Your task to perform on an android device: Go to Amazon Image 0: 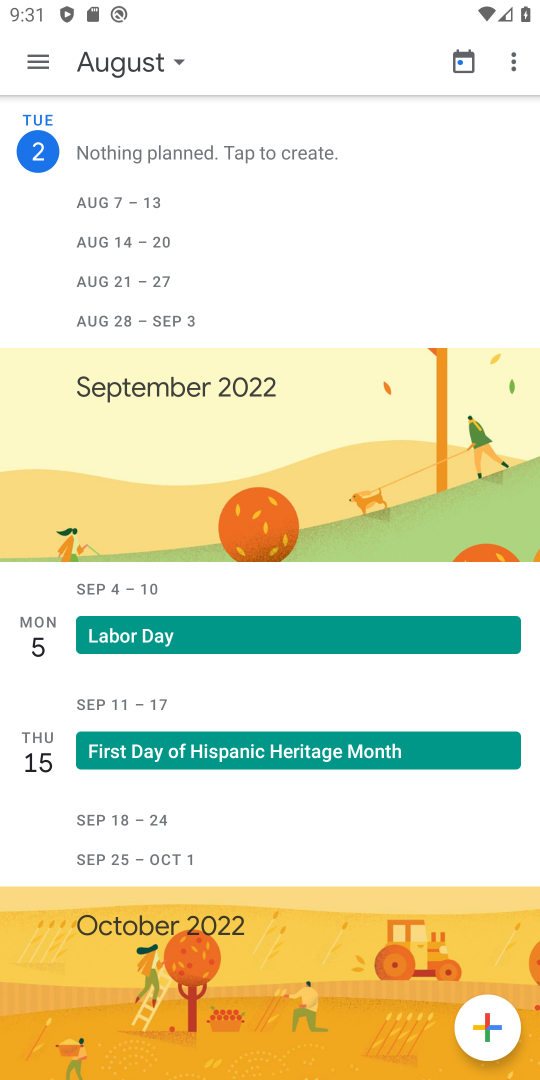
Step 0: press home button
Your task to perform on an android device: Go to Amazon Image 1: 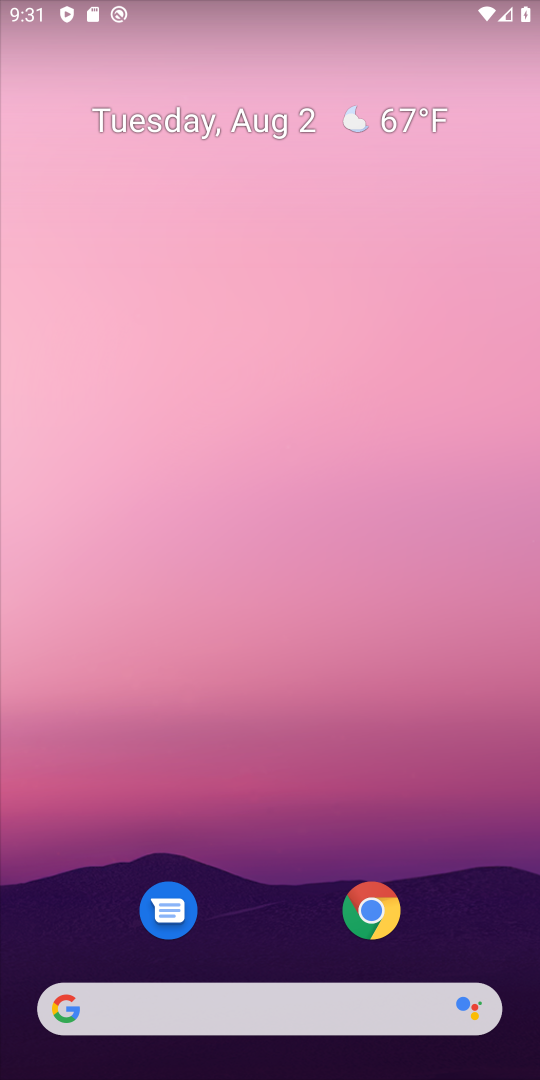
Step 1: click (380, 913)
Your task to perform on an android device: Go to Amazon Image 2: 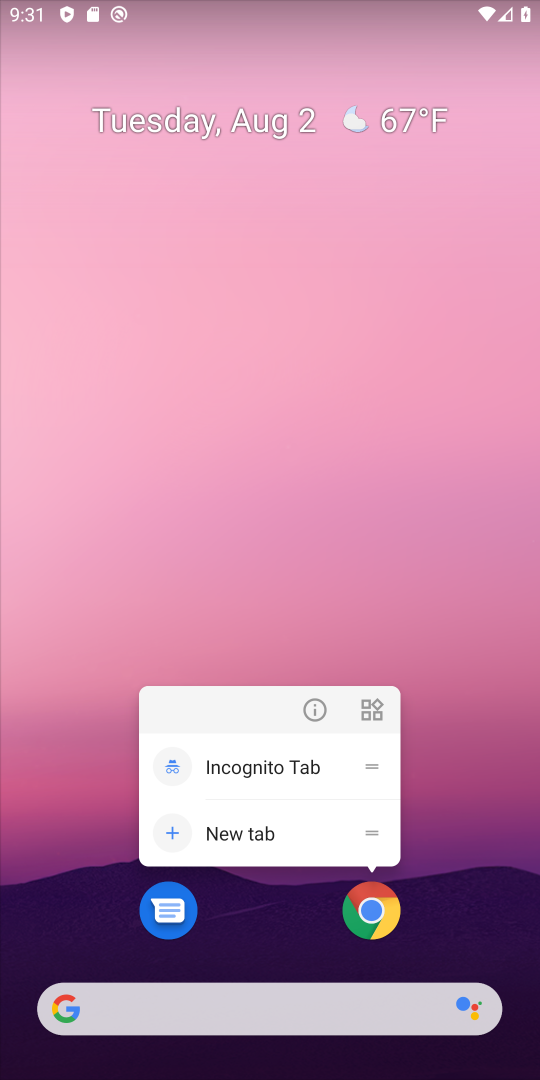
Step 2: click (380, 913)
Your task to perform on an android device: Go to Amazon Image 3: 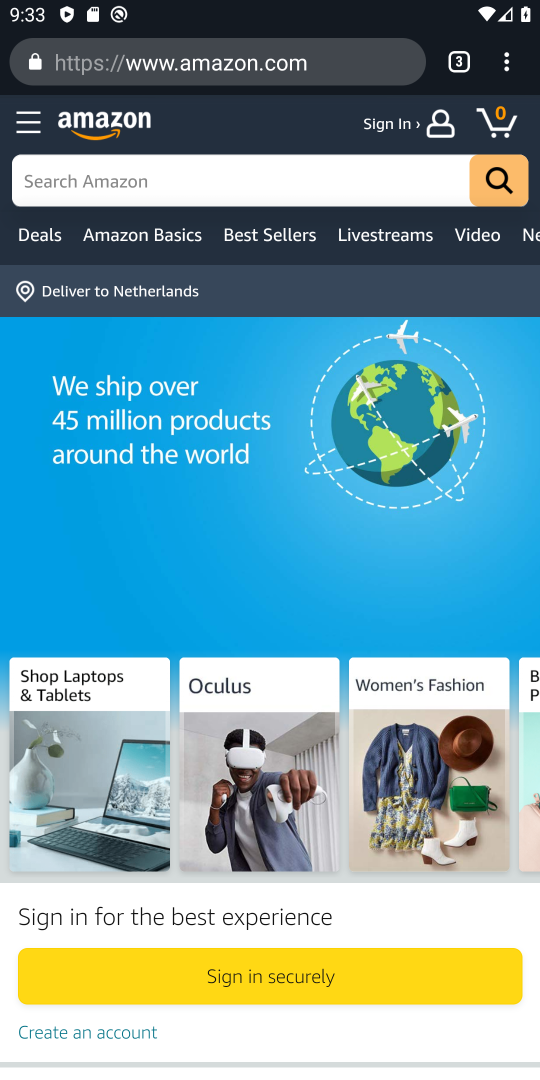
Step 3: task complete